Your task to perform on an android device: choose inbox layout in the gmail app Image 0: 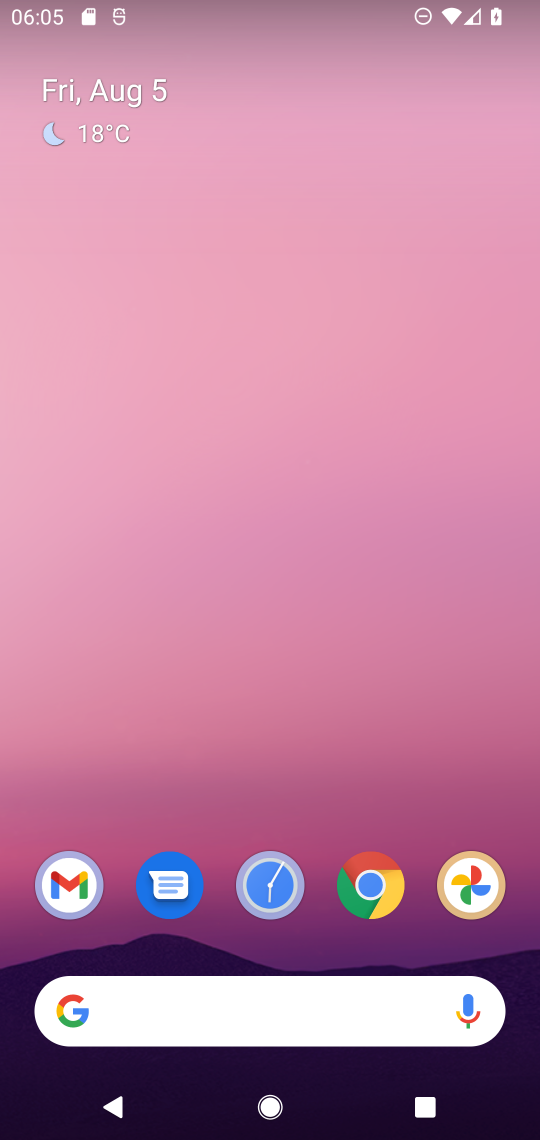
Step 0: drag from (333, 882) to (268, 107)
Your task to perform on an android device: choose inbox layout in the gmail app Image 1: 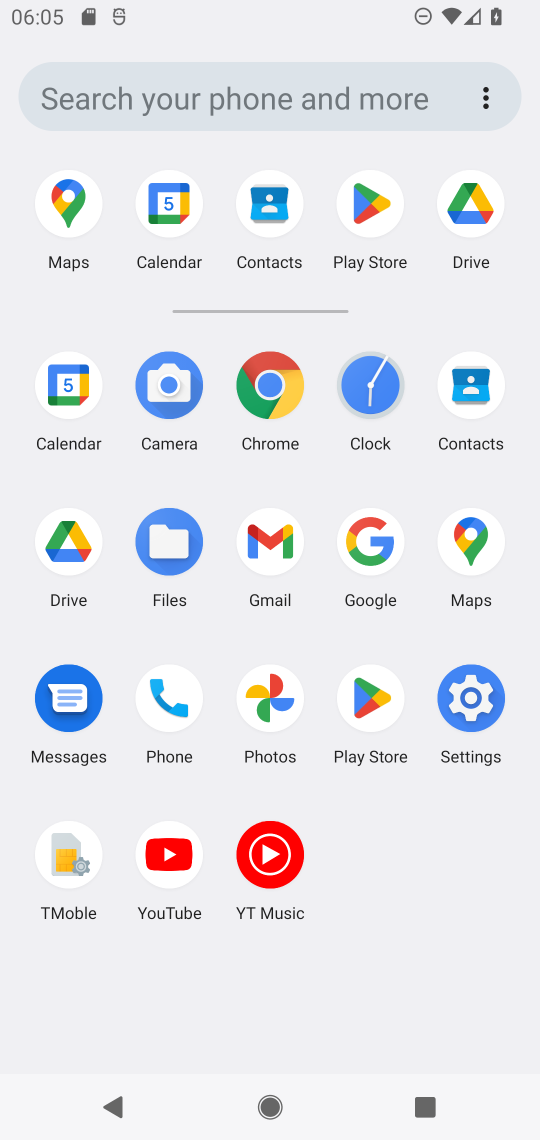
Step 1: click (264, 540)
Your task to perform on an android device: choose inbox layout in the gmail app Image 2: 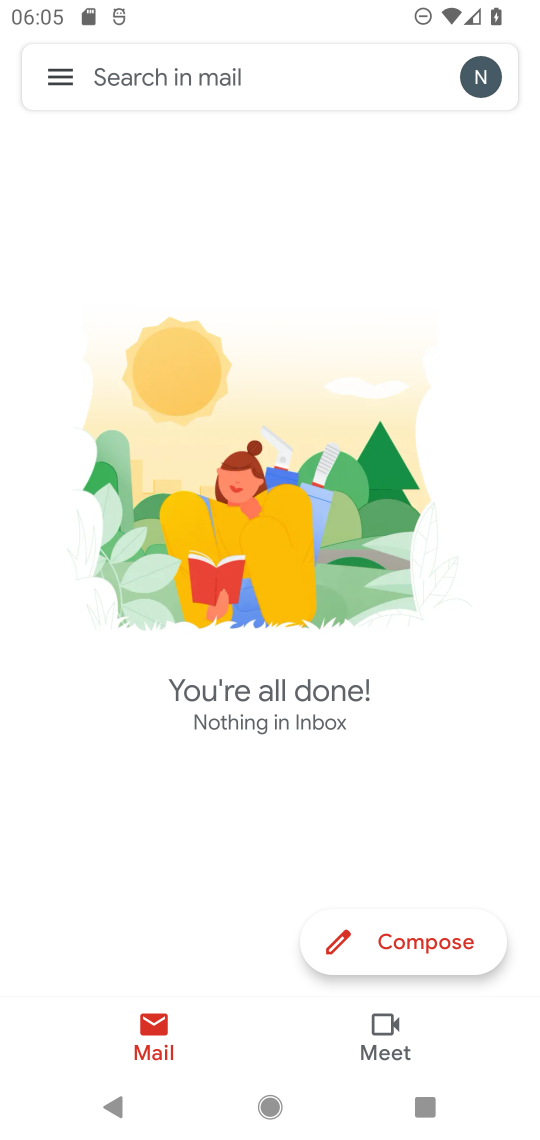
Step 2: click (50, 76)
Your task to perform on an android device: choose inbox layout in the gmail app Image 3: 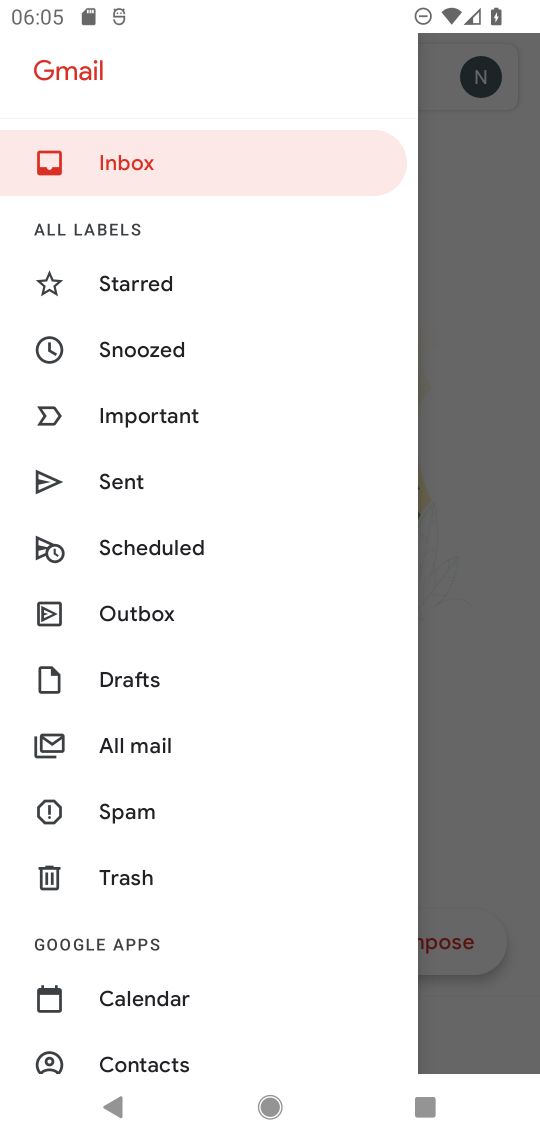
Step 3: drag from (150, 1011) to (124, 647)
Your task to perform on an android device: choose inbox layout in the gmail app Image 4: 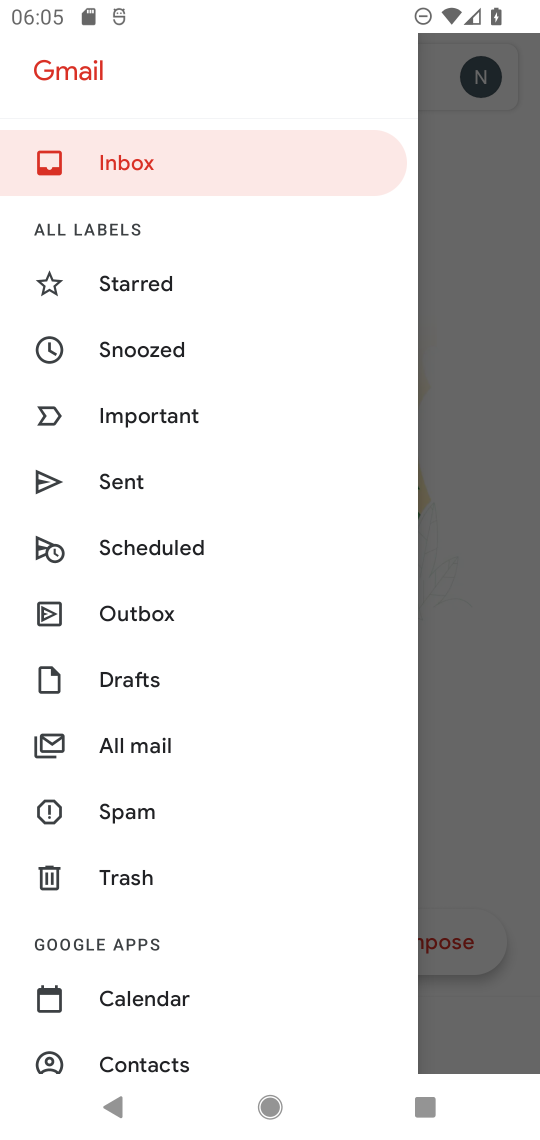
Step 4: drag from (148, 1013) to (147, 508)
Your task to perform on an android device: choose inbox layout in the gmail app Image 5: 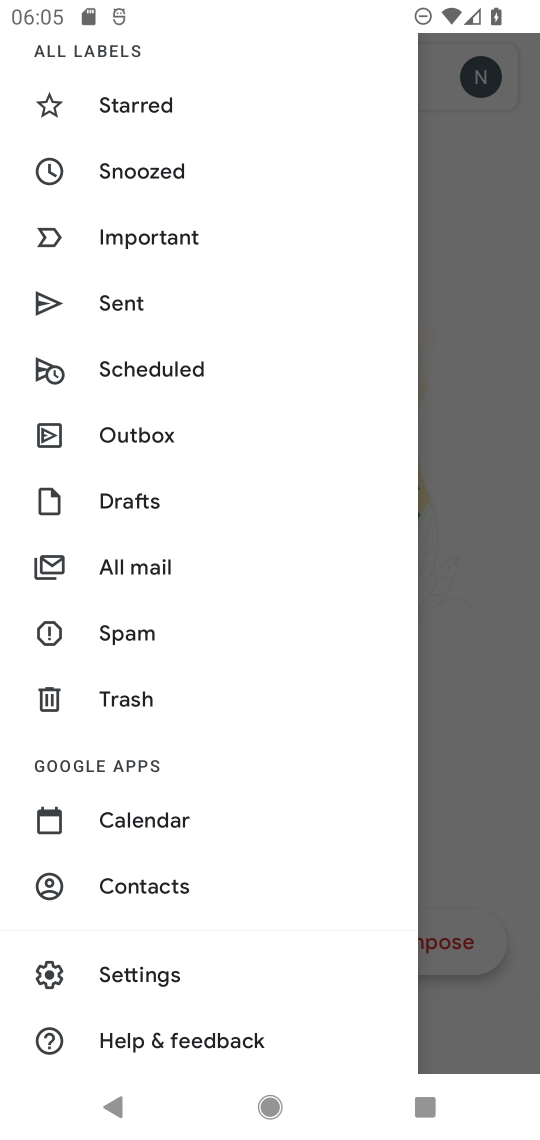
Step 5: click (146, 975)
Your task to perform on an android device: choose inbox layout in the gmail app Image 6: 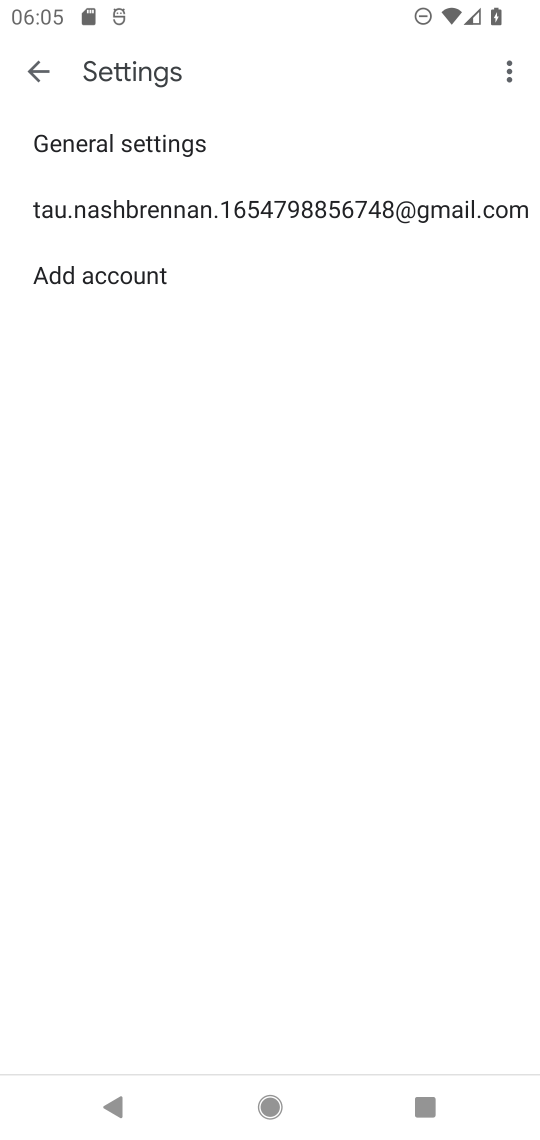
Step 6: click (234, 199)
Your task to perform on an android device: choose inbox layout in the gmail app Image 7: 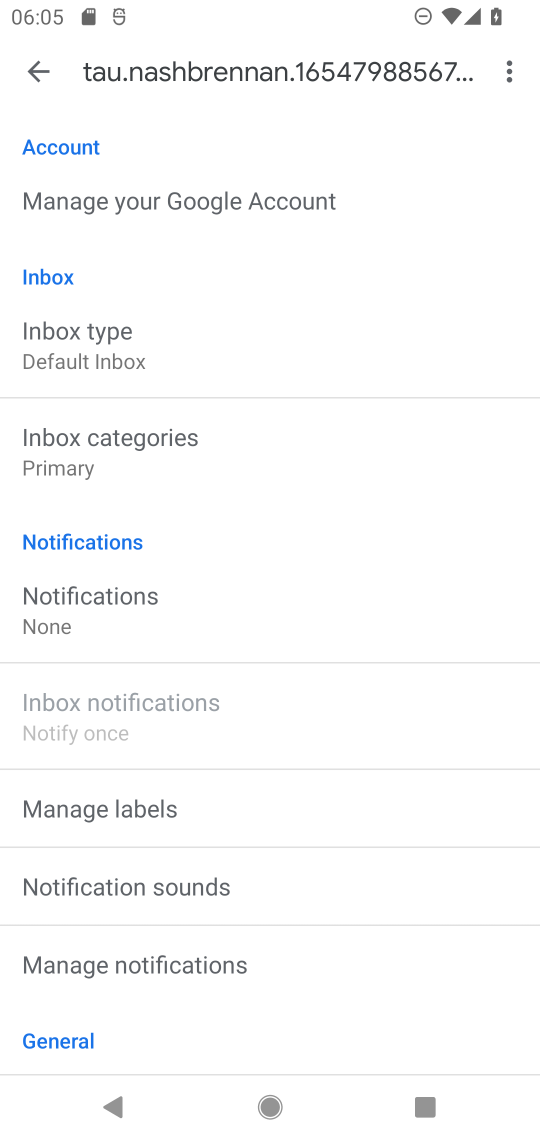
Step 7: click (113, 345)
Your task to perform on an android device: choose inbox layout in the gmail app Image 8: 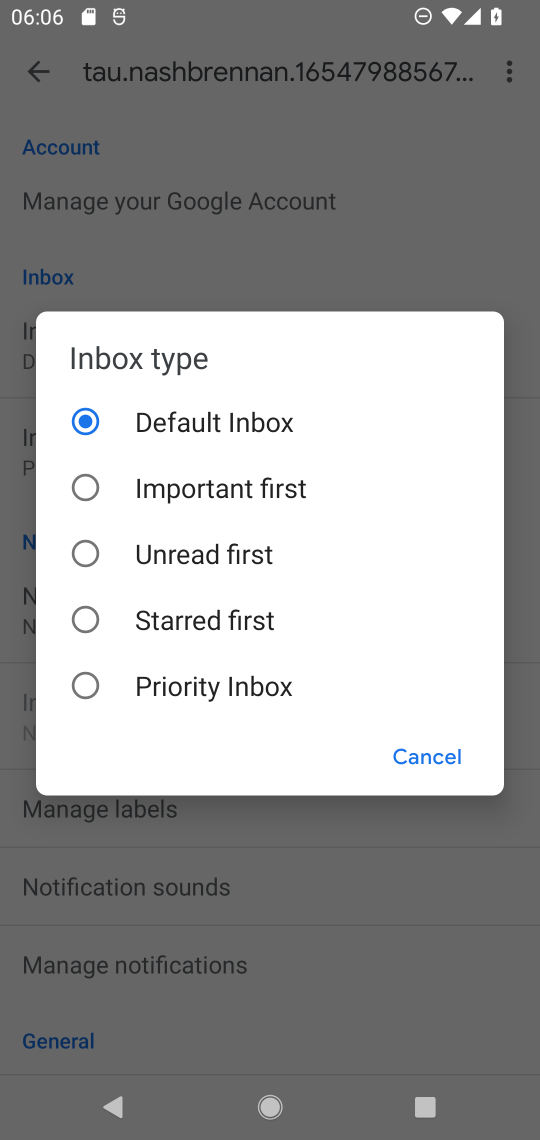
Step 8: click (87, 691)
Your task to perform on an android device: choose inbox layout in the gmail app Image 9: 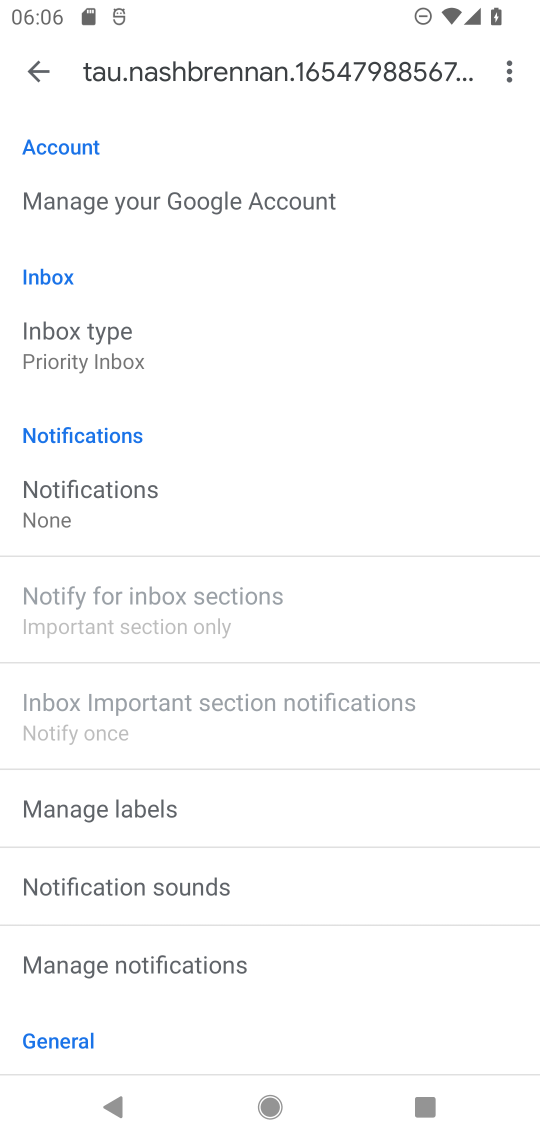
Step 9: task complete